Your task to perform on an android device: toggle pop-ups in chrome Image 0: 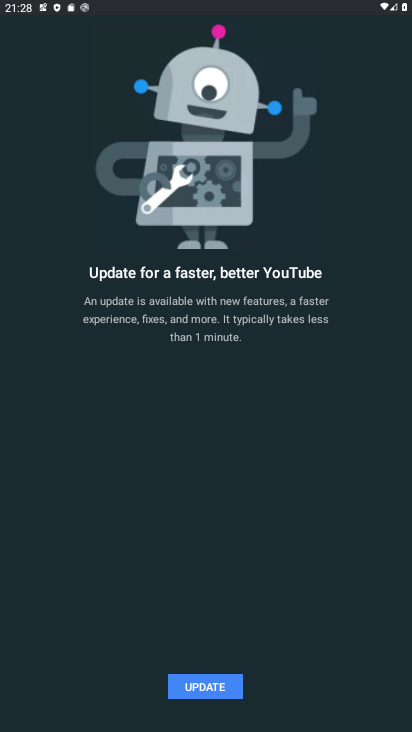
Step 0: press home button
Your task to perform on an android device: toggle pop-ups in chrome Image 1: 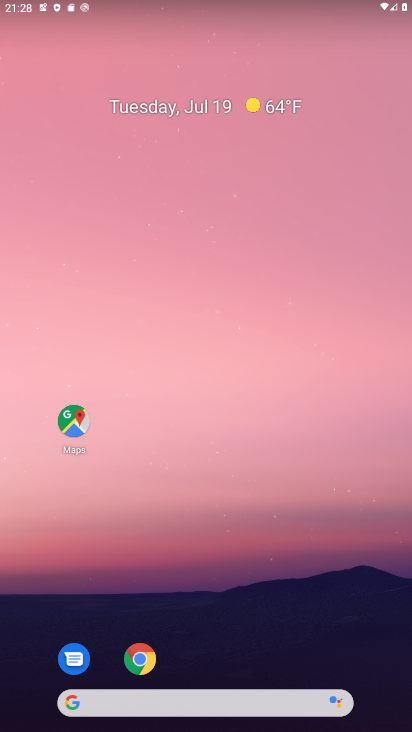
Step 1: click (135, 668)
Your task to perform on an android device: toggle pop-ups in chrome Image 2: 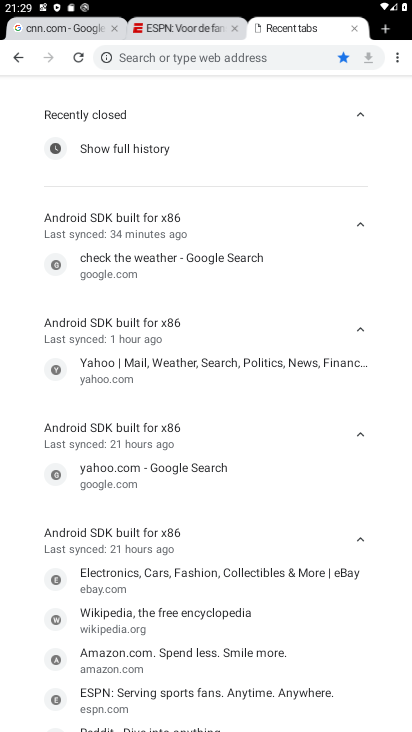
Step 2: click (394, 51)
Your task to perform on an android device: toggle pop-ups in chrome Image 3: 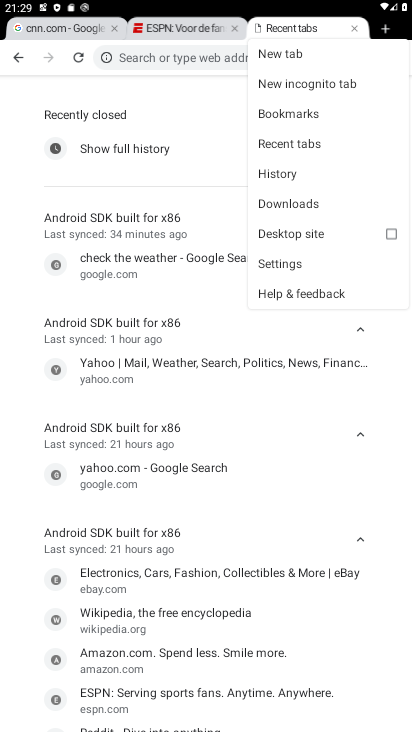
Step 3: click (290, 268)
Your task to perform on an android device: toggle pop-ups in chrome Image 4: 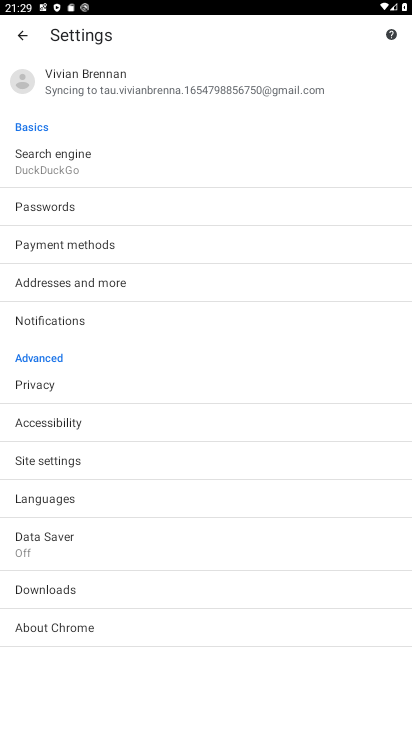
Step 4: click (96, 457)
Your task to perform on an android device: toggle pop-ups in chrome Image 5: 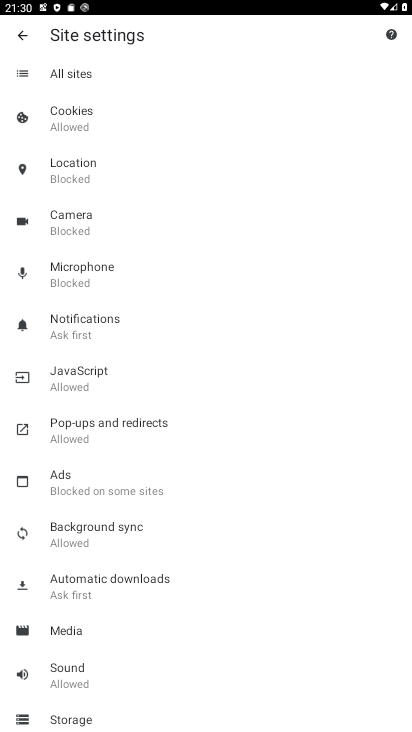
Step 5: click (112, 429)
Your task to perform on an android device: toggle pop-ups in chrome Image 6: 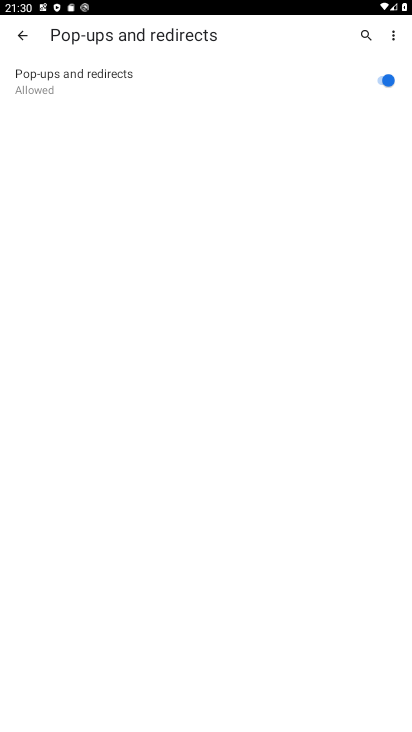
Step 6: click (391, 80)
Your task to perform on an android device: toggle pop-ups in chrome Image 7: 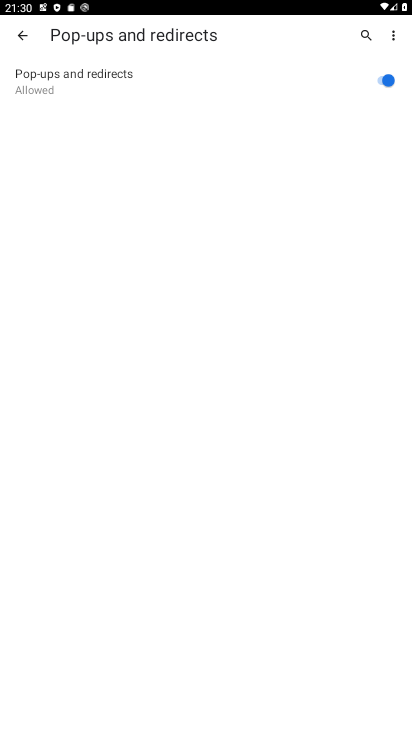
Step 7: click (391, 80)
Your task to perform on an android device: toggle pop-ups in chrome Image 8: 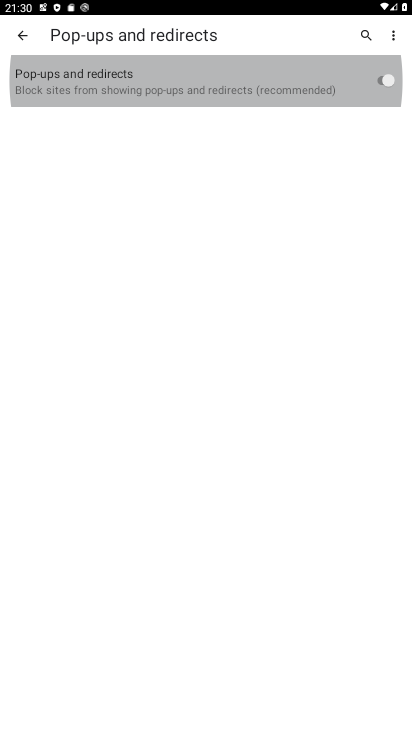
Step 8: click (391, 80)
Your task to perform on an android device: toggle pop-ups in chrome Image 9: 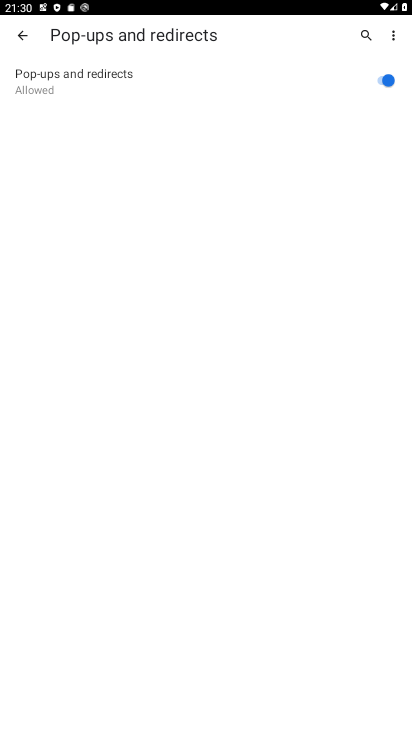
Step 9: task complete